Your task to perform on an android device: delete location history Image 0: 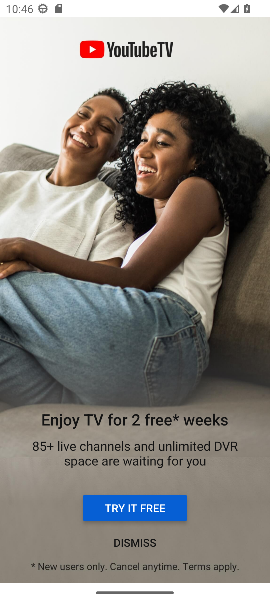
Step 0: press home button
Your task to perform on an android device: delete location history Image 1: 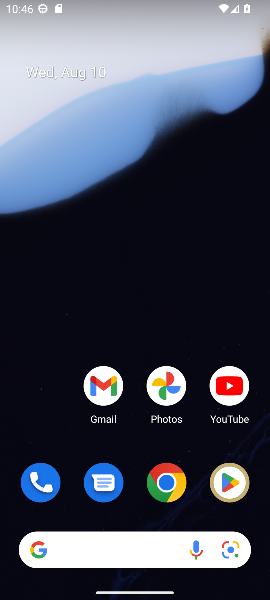
Step 1: drag from (66, 369) to (134, 96)
Your task to perform on an android device: delete location history Image 2: 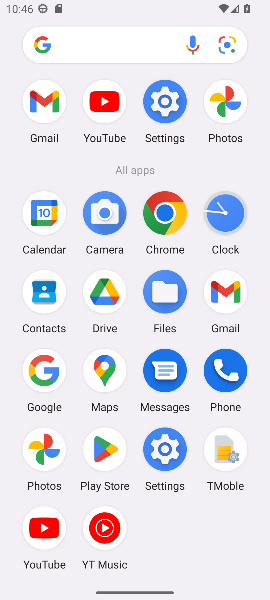
Step 2: click (160, 103)
Your task to perform on an android device: delete location history Image 3: 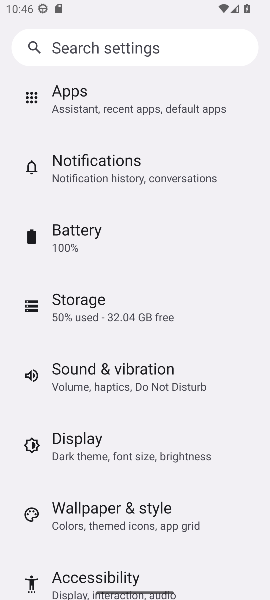
Step 3: task complete